Your task to perform on an android device: set an alarm Image 0: 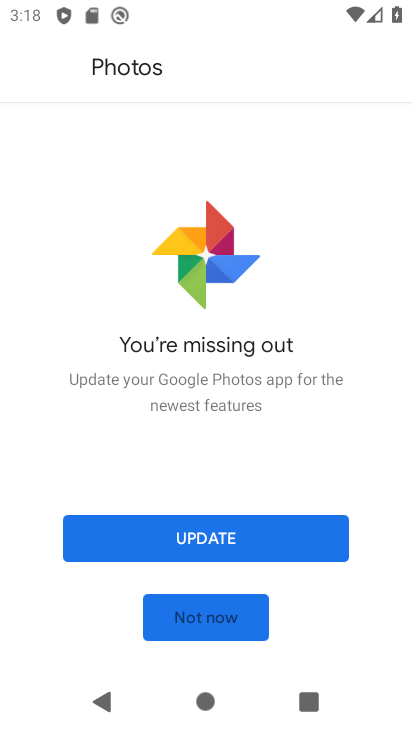
Step 0: press home button
Your task to perform on an android device: set an alarm Image 1: 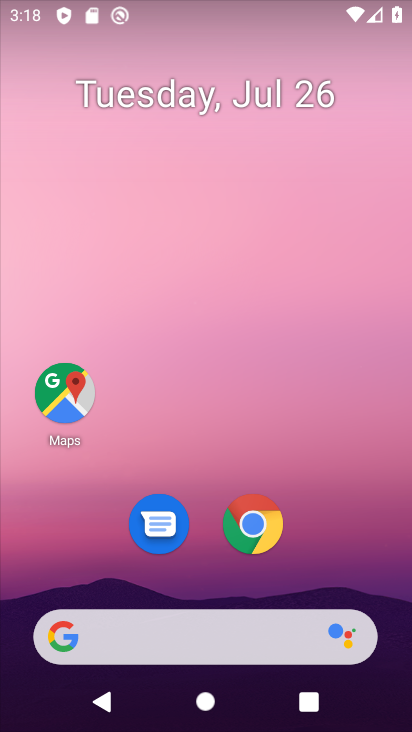
Step 1: drag from (301, 545) to (295, 11)
Your task to perform on an android device: set an alarm Image 2: 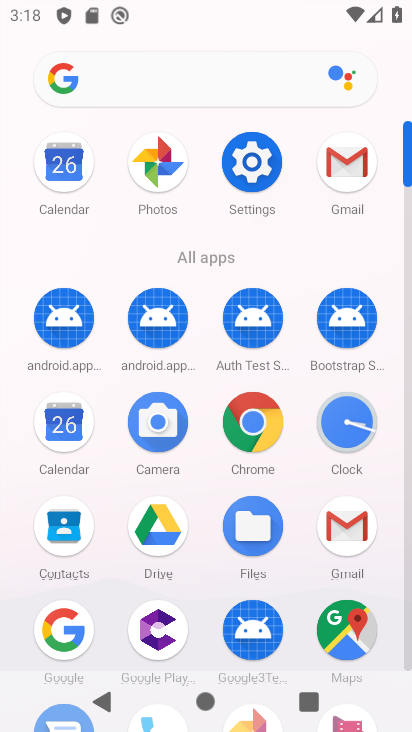
Step 2: click (358, 426)
Your task to perform on an android device: set an alarm Image 3: 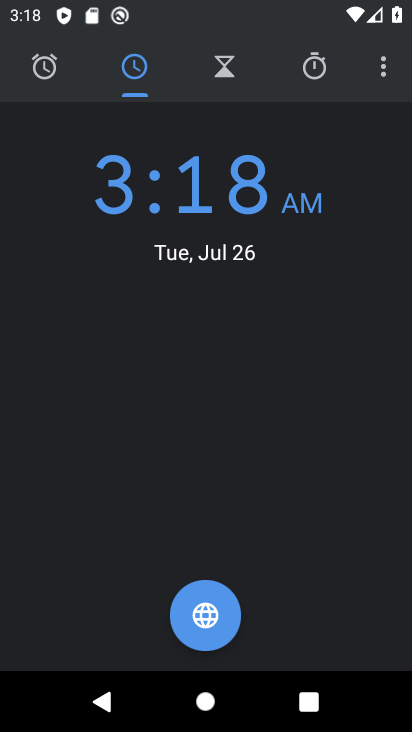
Step 3: click (53, 68)
Your task to perform on an android device: set an alarm Image 4: 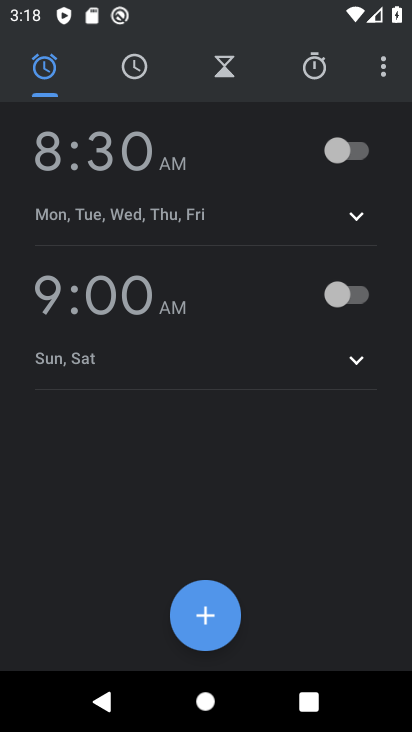
Step 4: click (208, 614)
Your task to perform on an android device: set an alarm Image 5: 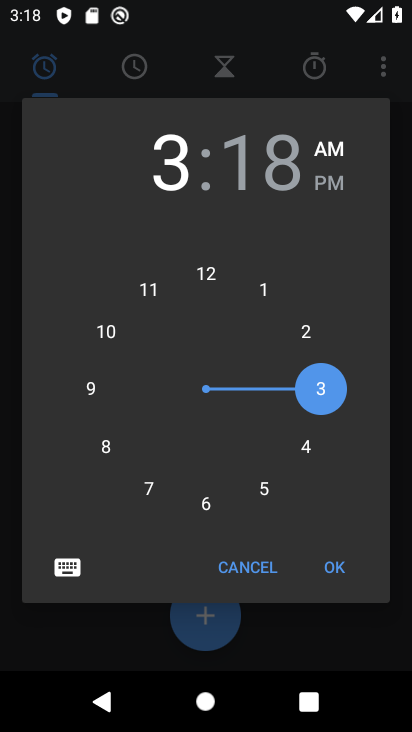
Step 5: click (272, 183)
Your task to perform on an android device: set an alarm Image 6: 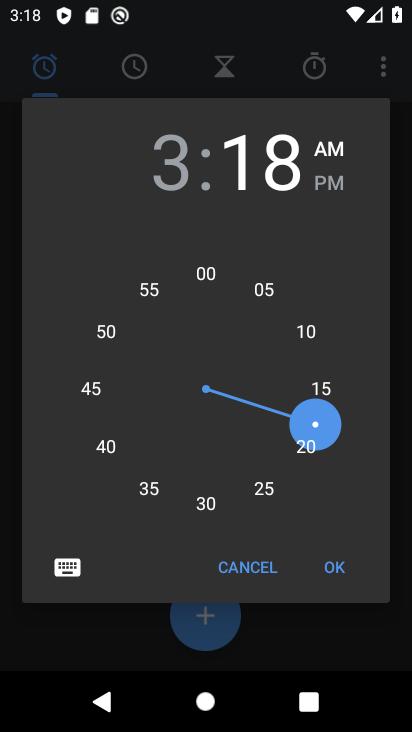
Step 6: click (205, 275)
Your task to perform on an android device: set an alarm Image 7: 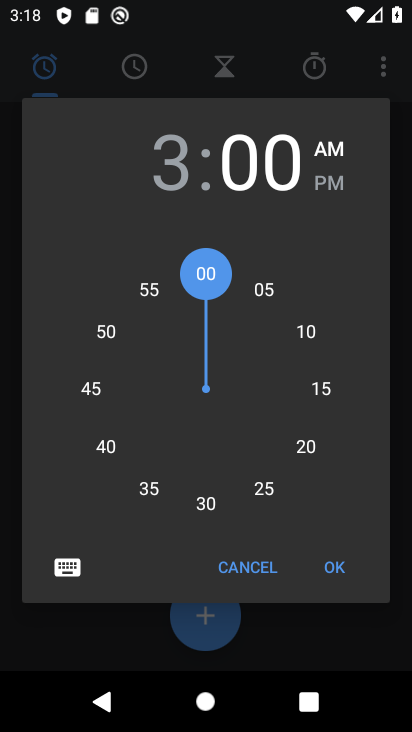
Step 7: click (331, 181)
Your task to perform on an android device: set an alarm Image 8: 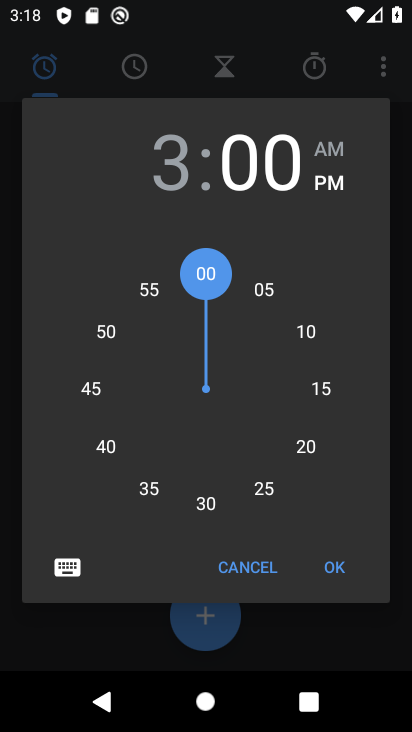
Step 8: task complete